Your task to perform on an android device: Open Wikipedia Image 0: 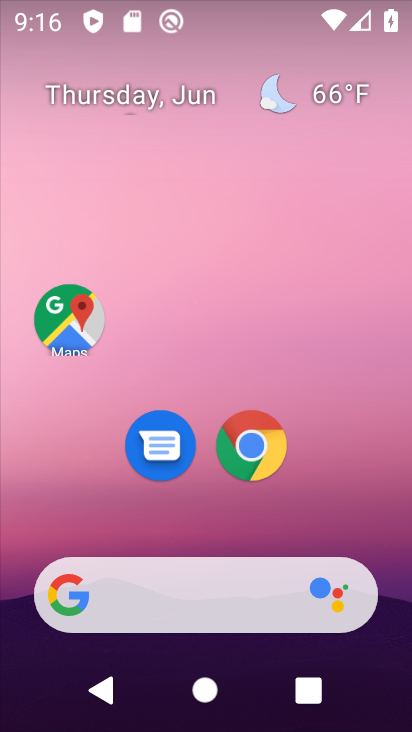
Step 0: click (249, 448)
Your task to perform on an android device: Open Wikipedia Image 1: 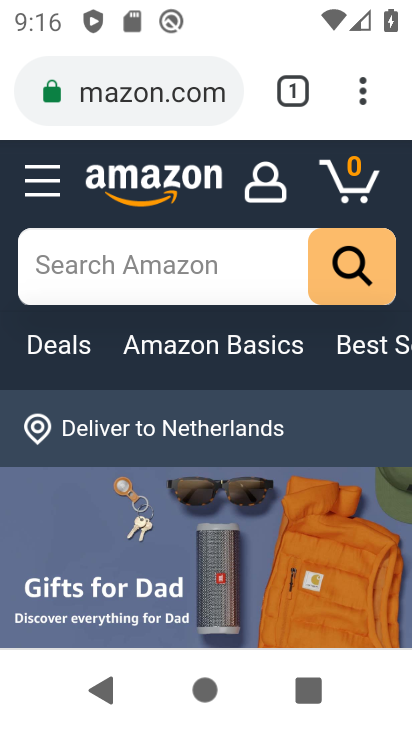
Step 1: click (172, 100)
Your task to perform on an android device: Open Wikipedia Image 2: 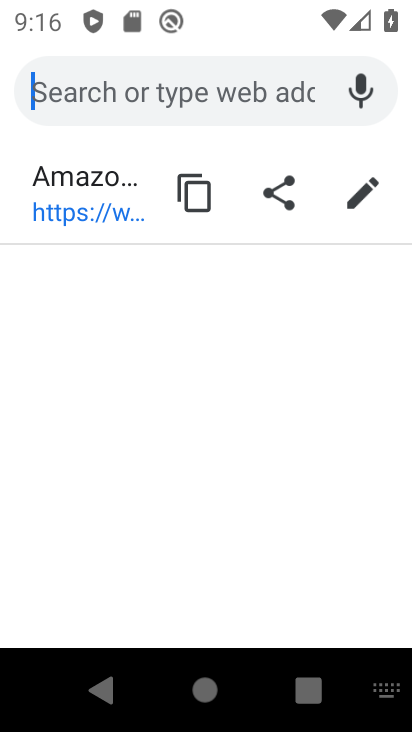
Step 2: type "wikipedia"
Your task to perform on an android device: Open Wikipedia Image 3: 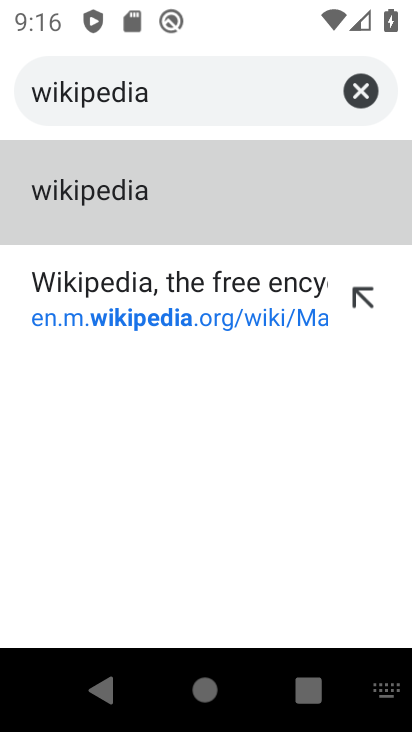
Step 3: click (46, 172)
Your task to perform on an android device: Open Wikipedia Image 4: 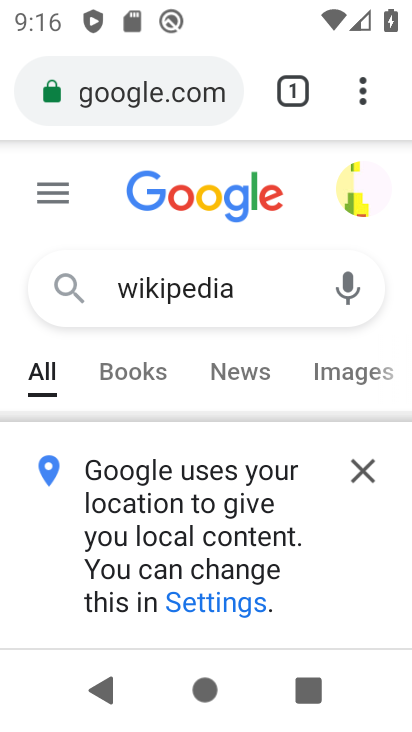
Step 4: click (368, 463)
Your task to perform on an android device: Open Wikipedia Image 5: 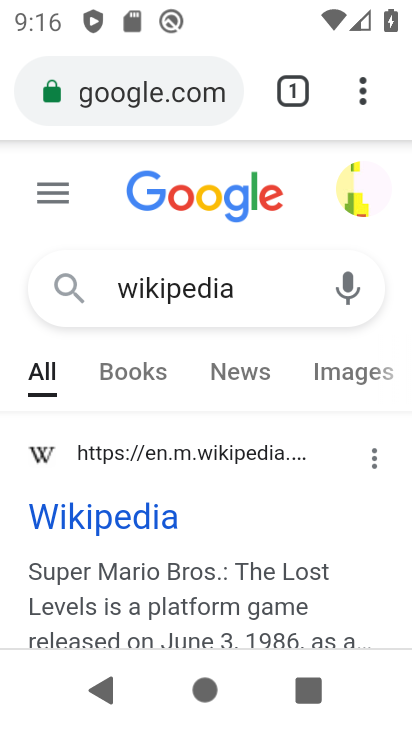
Step 5: click (153, 515)
Your task to perform on an android device: Open Wikipedia Image 6: 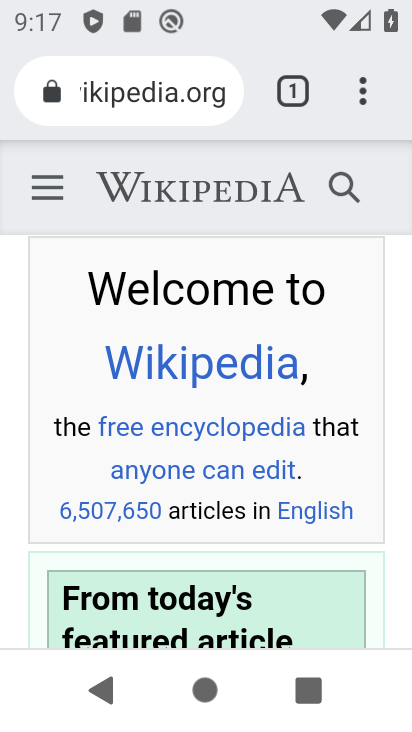
Step 6: task complete